Your task to perform on an android device: change the clock style Image 0: 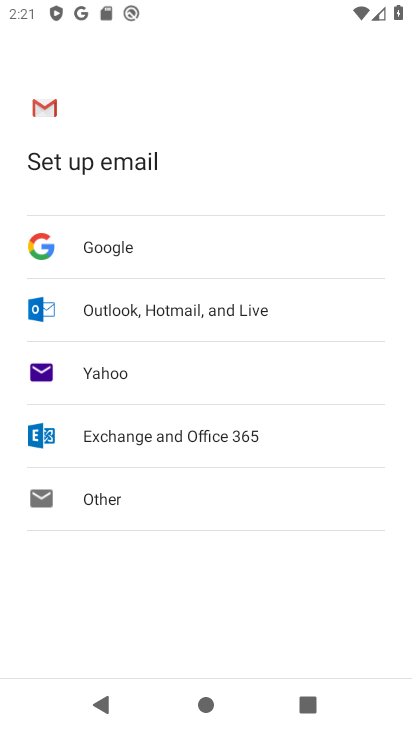
Step 0: press home button
Your task to perform on an android device: change the clock style Image 1: 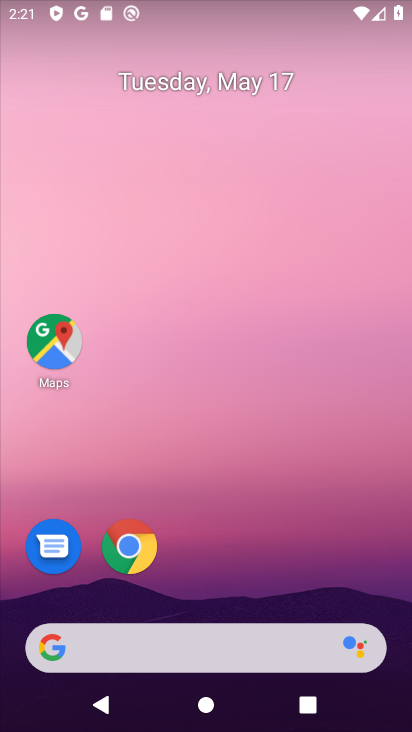
Step 1: drag from (186, 562) to (173, 7)
Your task to perform on an android device: change the clock style Image 2: 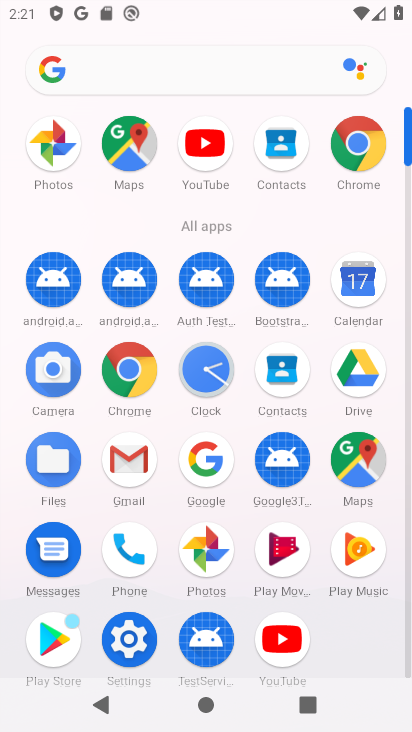
Step 2: click (208, 378)
Your task to perform on an android device: change the clock style Image 3: 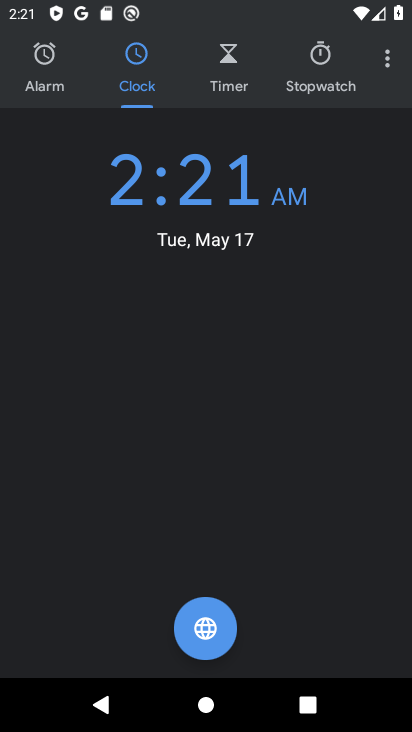
Step 3: click (377, 65)
Your task to perform on an android device: change the clock style Image 4: 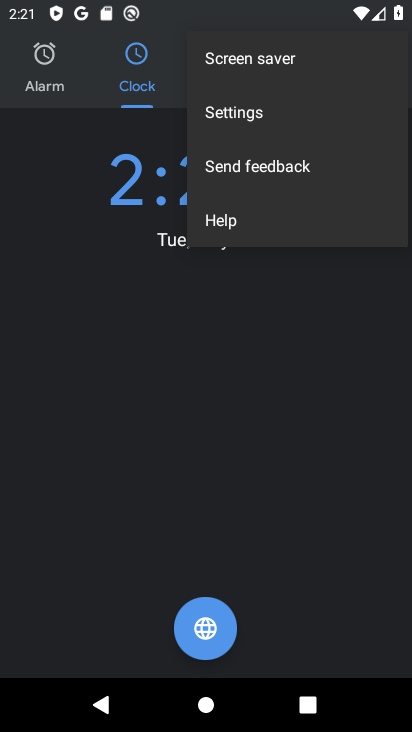
Step 4: click (236, 118)
Your task to perform on an android device: change the clock style Image 5: 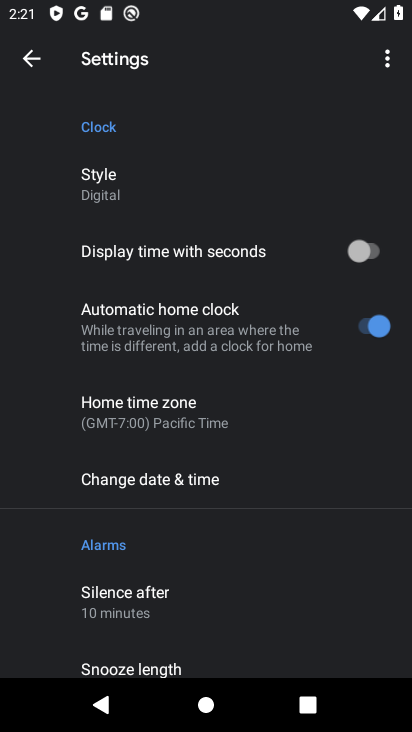
Step 5: click (96, 193)
Your task to perform on an android device: change the clock style Image 6: 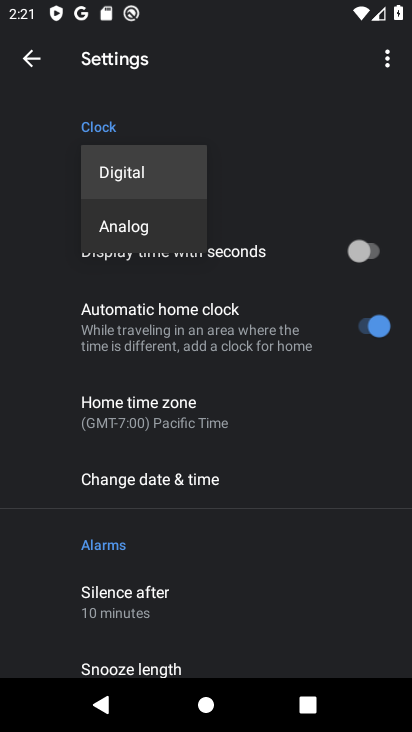
Step 6: click (77, 194)
Your task to perform on an android device: change the clock style Image 7: 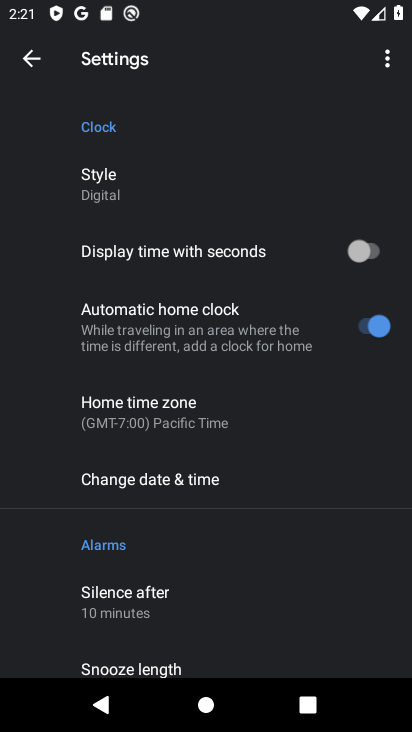
Step 7: click (118, 224)
Your task to perform on an android device: change the clock style Image 8: 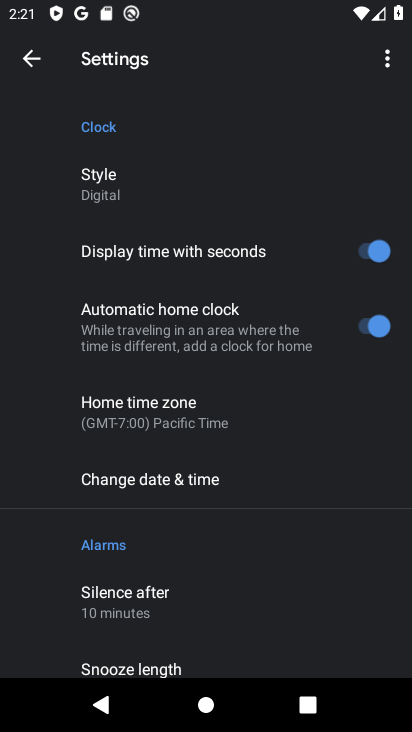
Step 8: task complete